Your task to perform on an android device: toggle airplane mode Image 0: 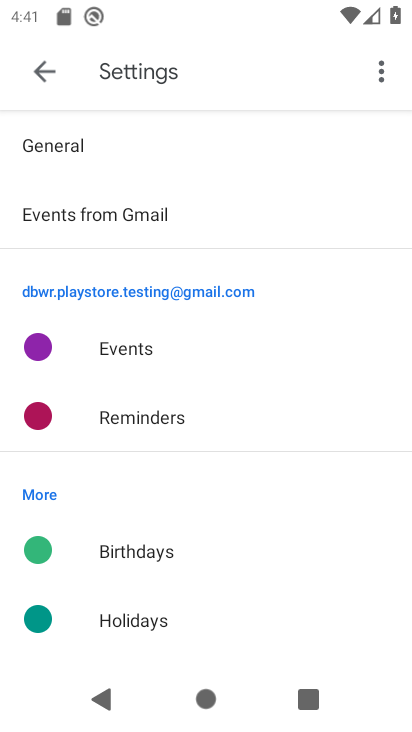
Step 0: press home button
Your task to perform on an android device: toggle airplane mode Image 1: 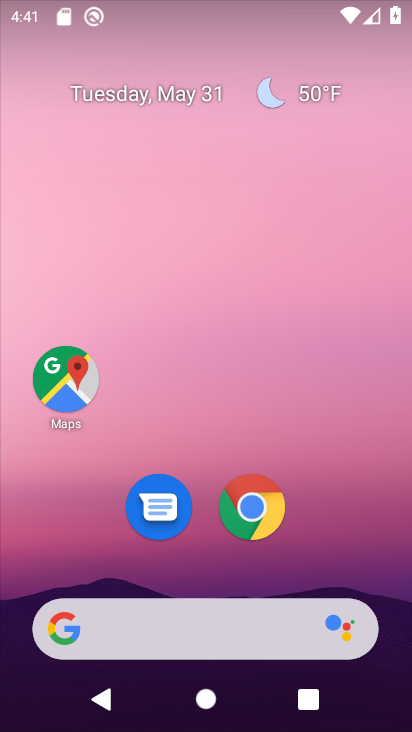
Step 1: drag from (310, 543) to (281, 1)
Your task to perform on an android device: toggle airplane mode Image 2: 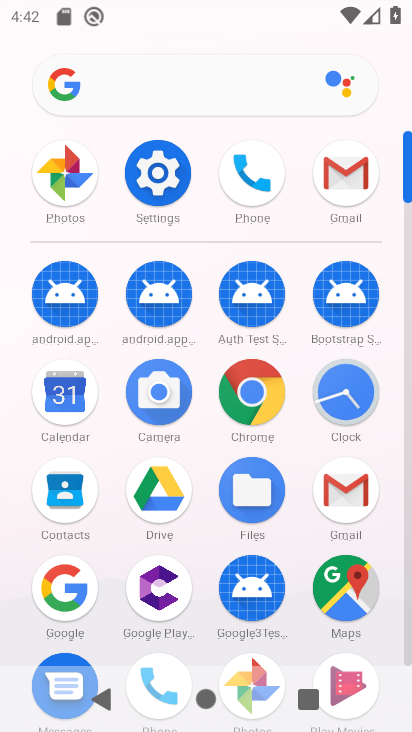
Step 2: click (151, 167)
Your task to perform on an android device: toggle airplane mode Image 3: 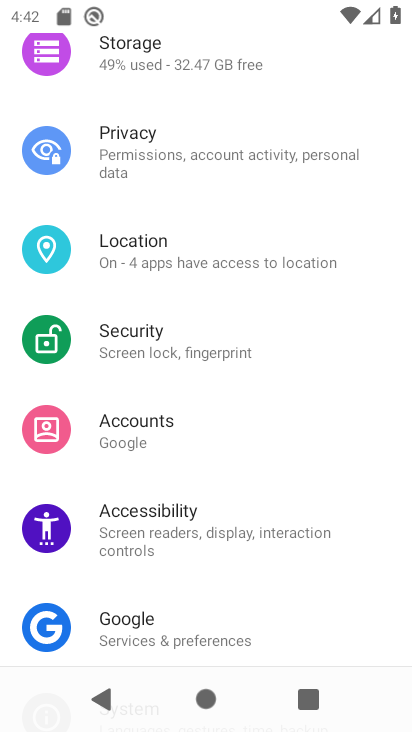
Step 3: drag from (163, 192) to (253, 565)
Your task to perform on an android device: toggle airplane mode Image 4: 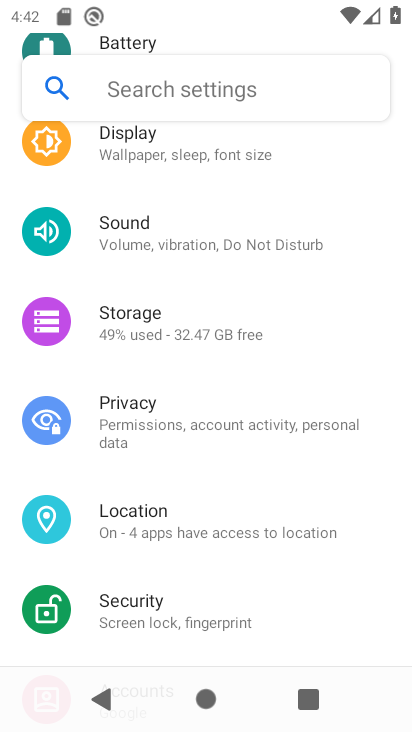
Step 4: drag from (291, 338) to (339, 590)
Your task to perform on an android device: toggle airplane mode Image 5: 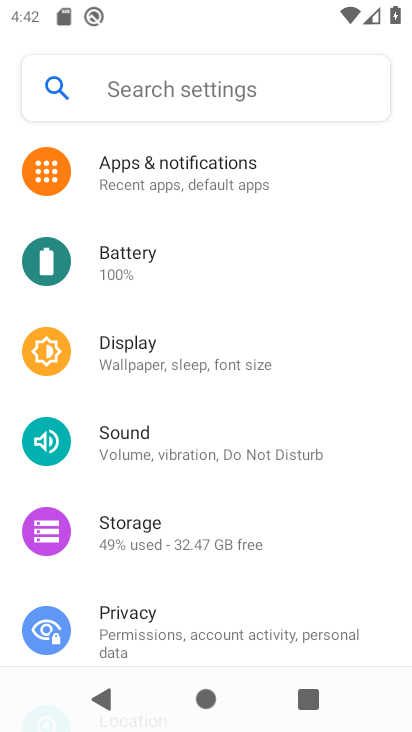
Step 5: drag from (245, 266) to (273, 565)
Your task to perform on an android device: toggle airplane mode Image 6: 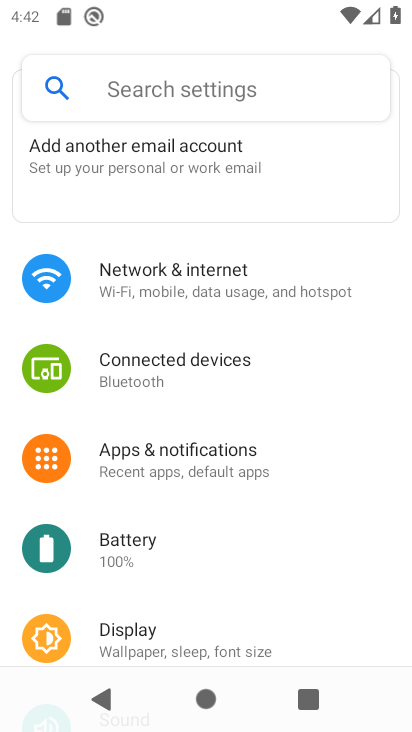
Step 6: click (212, 271)
Your task to perform on an android device: toggle airplane mode Image 7: 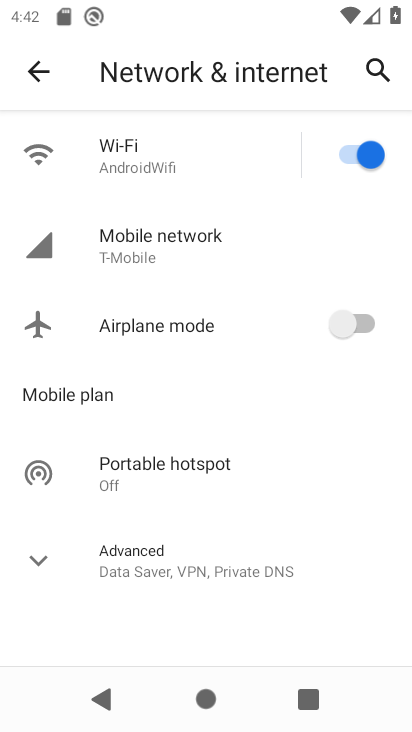
Step 7: click (354, 312)
Your task to perform on an android device: toggle airplane mode Image 8: 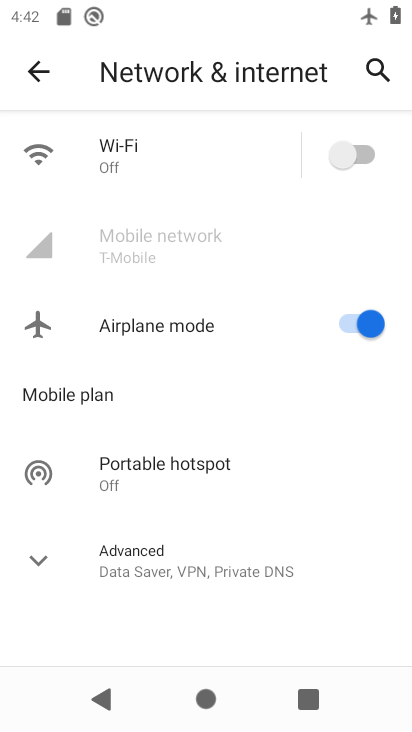
Step 8: task complete